Your task to perform on an android device: What's the weather going to be tomorrow? Image 0: 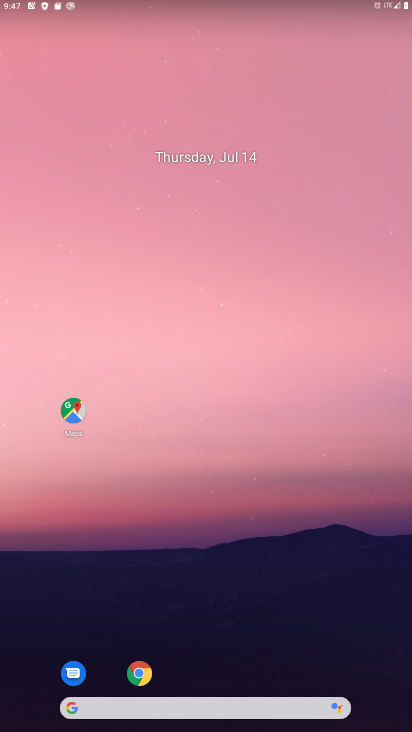
Step 0: drag from (184, 705) to (229, 289)
Your task to perform on an android device: What's the weather going to be tomorrow? Image 1: 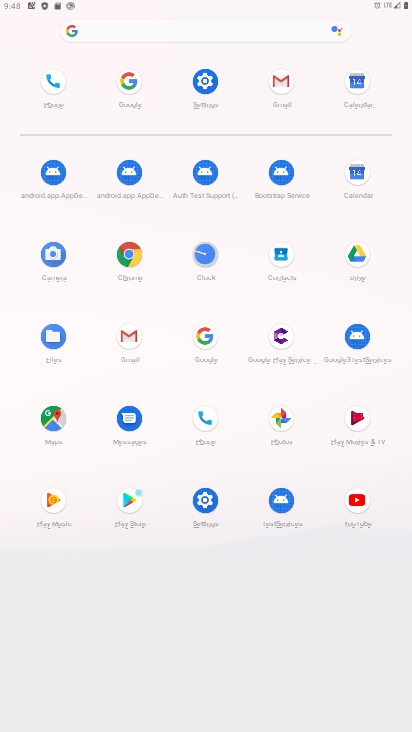
Step 1: click (202, 335)
Your task to perform on an android device: What's the weather going to be tomorrow? Image 2: 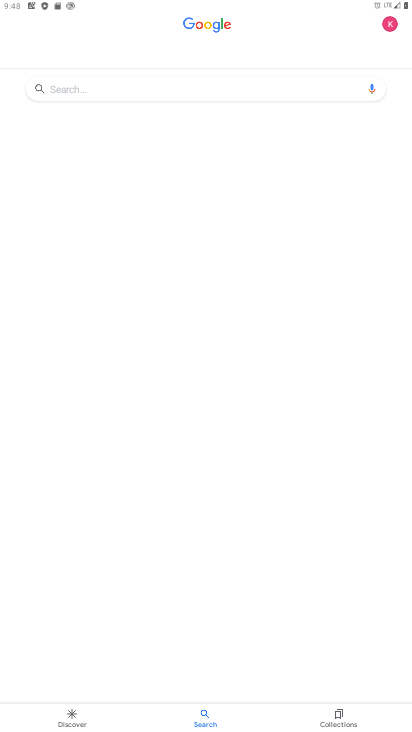
Step 2: click (187, 73)
Your task to perform on an android device: What's the weather going to be tomorrow? Image 3: 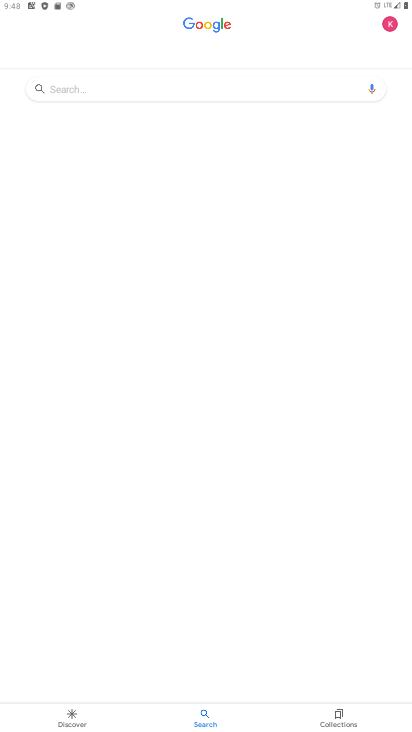
Step 3: click (155, 86)
Your task to perform on an android device: What's the weather going to be tomorrow? Image 4: 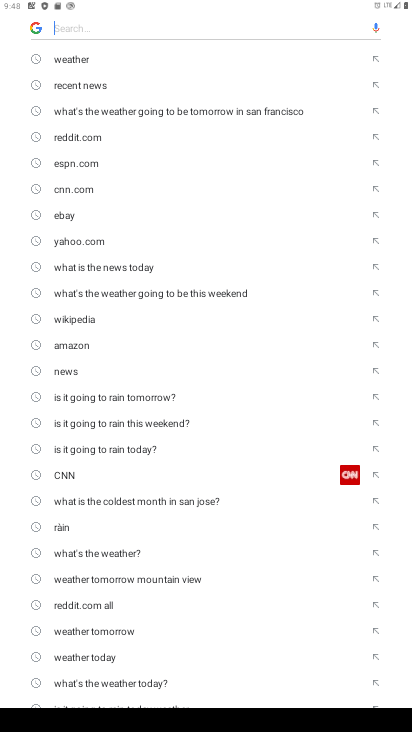
Step 4: click (276, 117)
Your task to perform on an android device: What's the weather going to be tomorrow? Image 5: 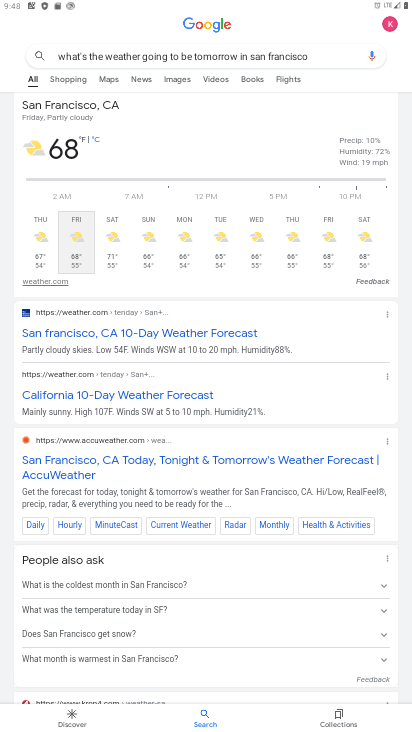
Step 5: task complete